Your task to perform on an android device: open app "Microsoft Outlook" (install if not already installed), go to login, and select forgot password Image 0: 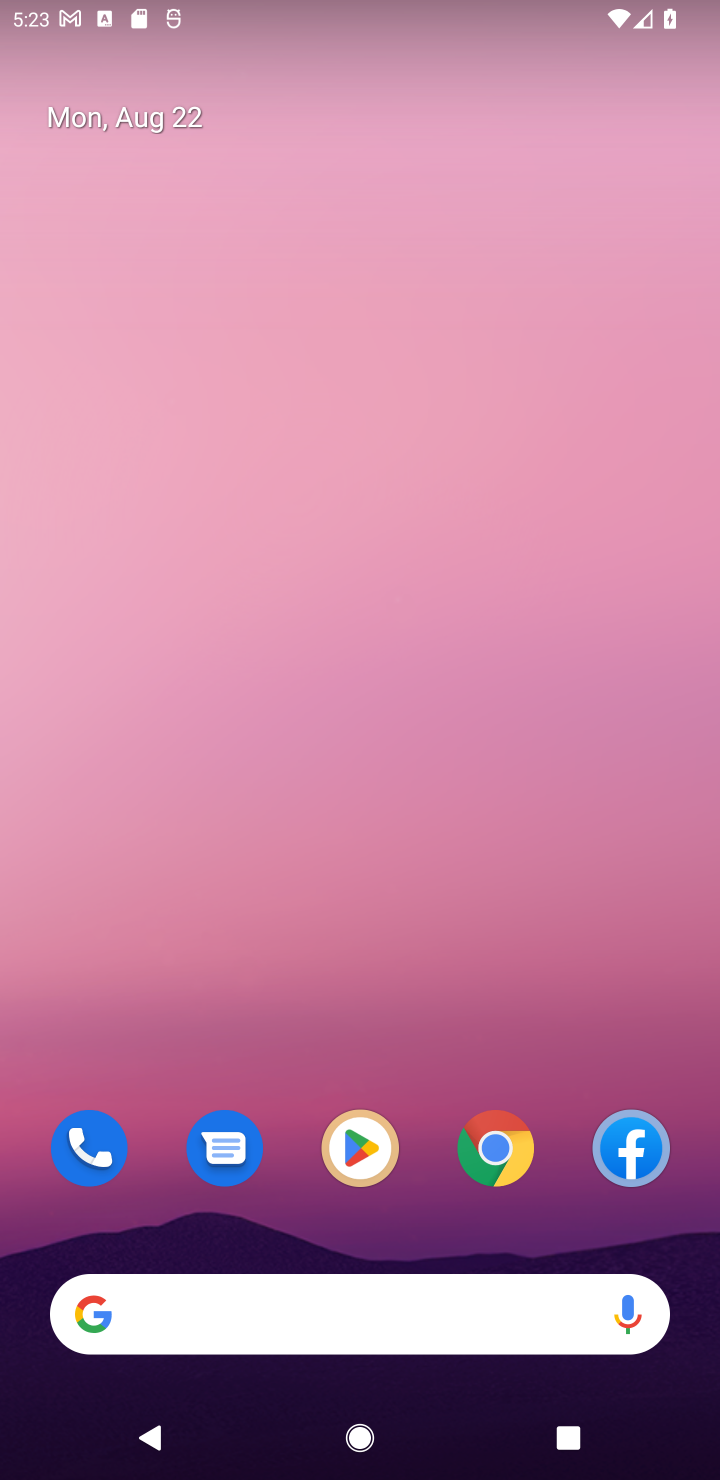
Step 0: click (362, 1155)
Your task to perform on an android device: open app "Microsoft Outlook" (install if not already installed), go to login, and select forgot password Image 1: 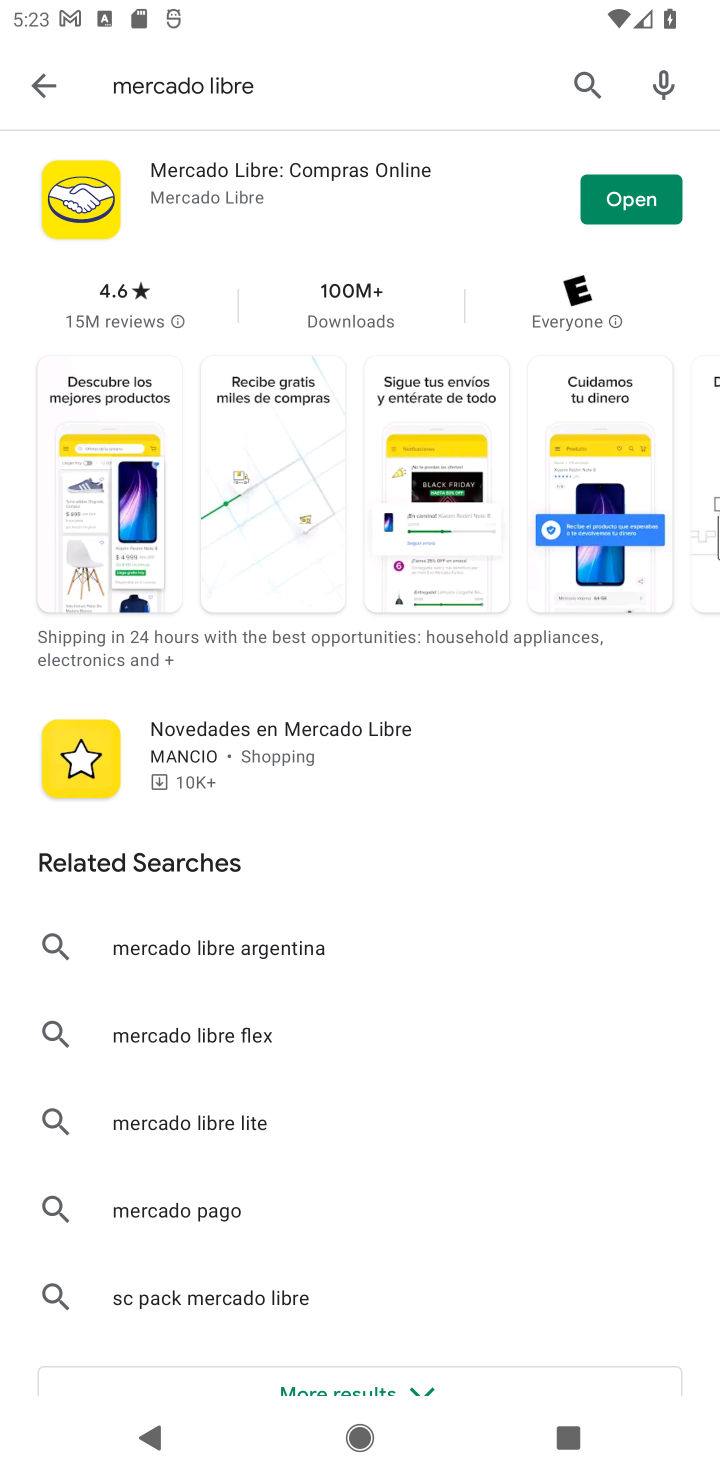
Step 1: click (587, 85)
Your task to perform on an android device: open app "Microsoft Outlook" (install if not already installed), go to login, and select forgot password Image 2: 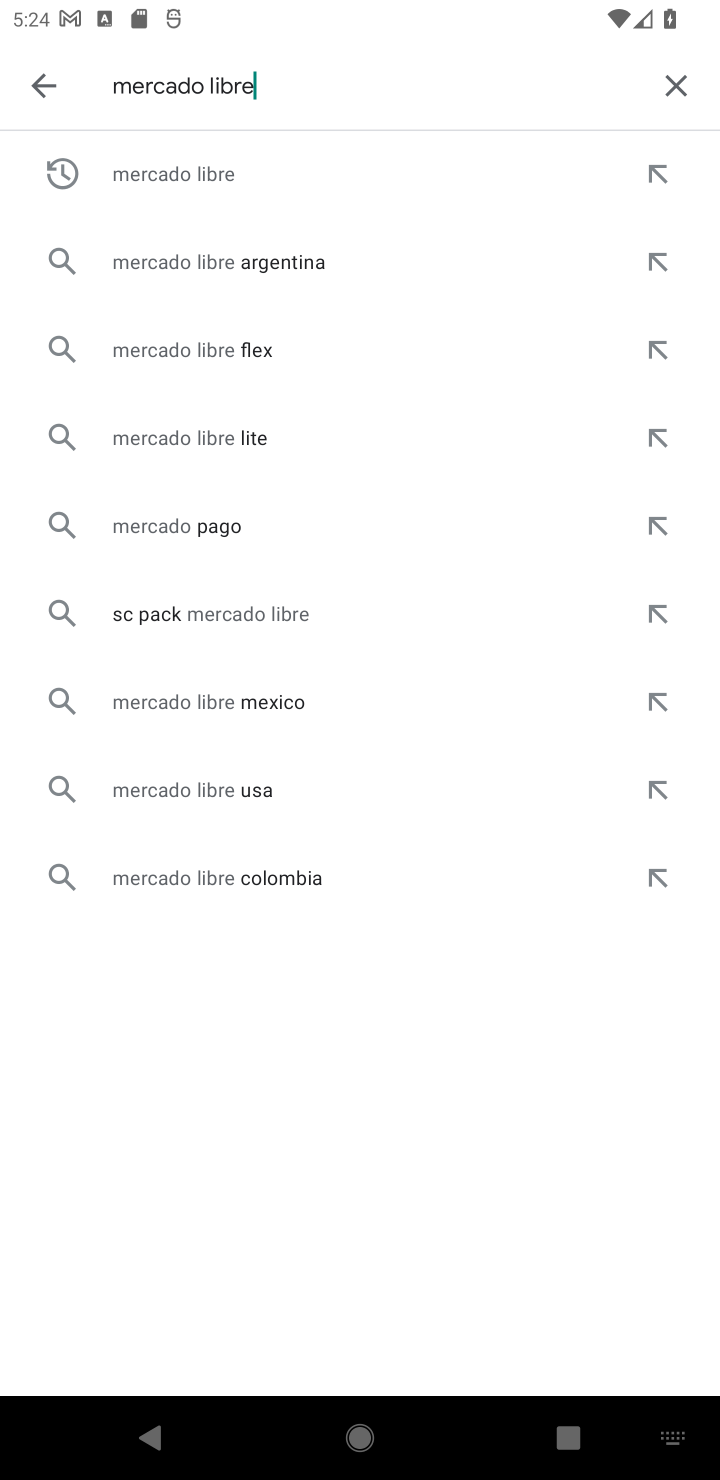
Step 2: click (667, 84)
Your task to perform on an android device: open app "Microsoft Outlook" (install if not already installed), go to login, and select forgot password Image 3: 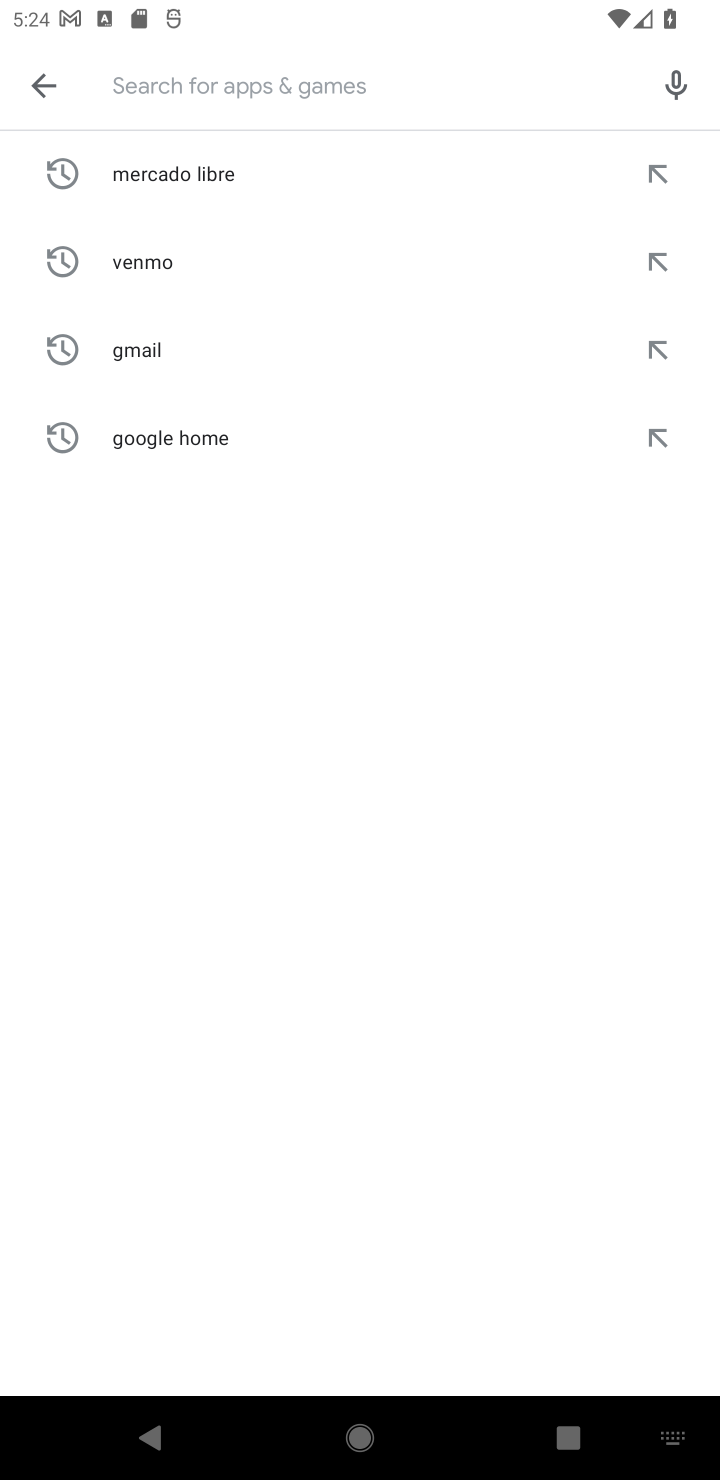
Step 3: type "Microsoft Outlook"
Your task to perform on an android device: open app "Microsoft Outlook" (install if not already installed), go to login, and select forgot password Image 4: 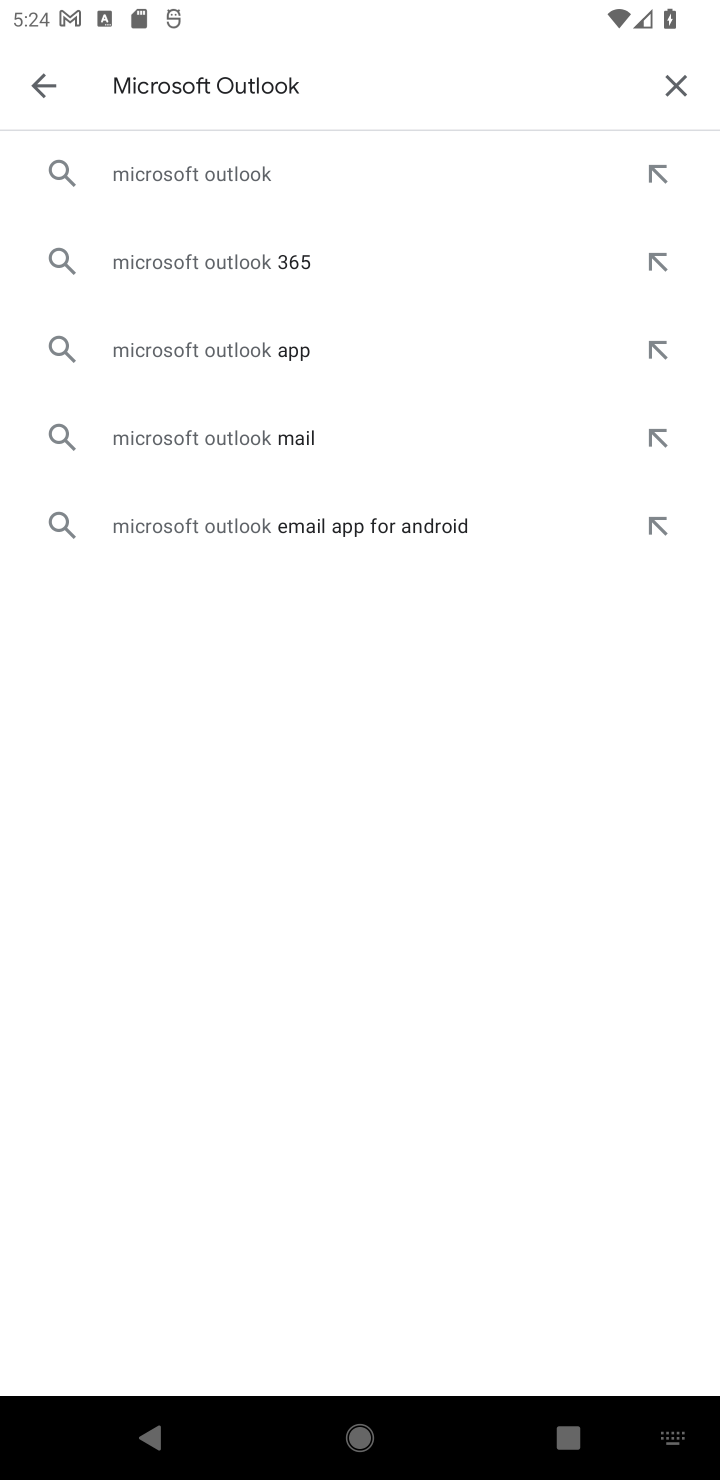
Step 4: click (201, 173)
Your task to perform on an android device: open app "Microsoft Outlook" (install if not already installed), go to login, and select forgot password Image 5: 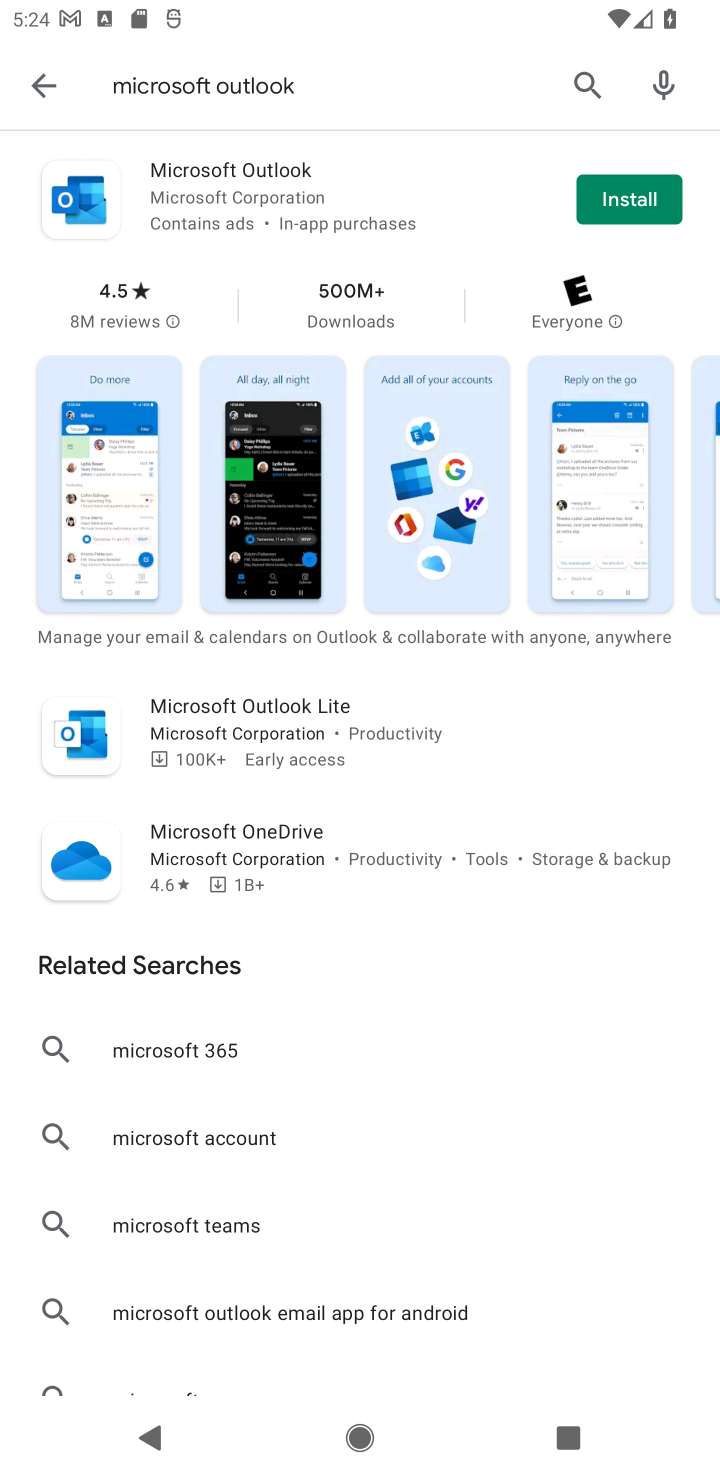
Step 5: click (644, 203)
Your task to perform on an android device: open app "Microsoft Outlook" (install if not already installed), go to login, and select forgot password Image 6: 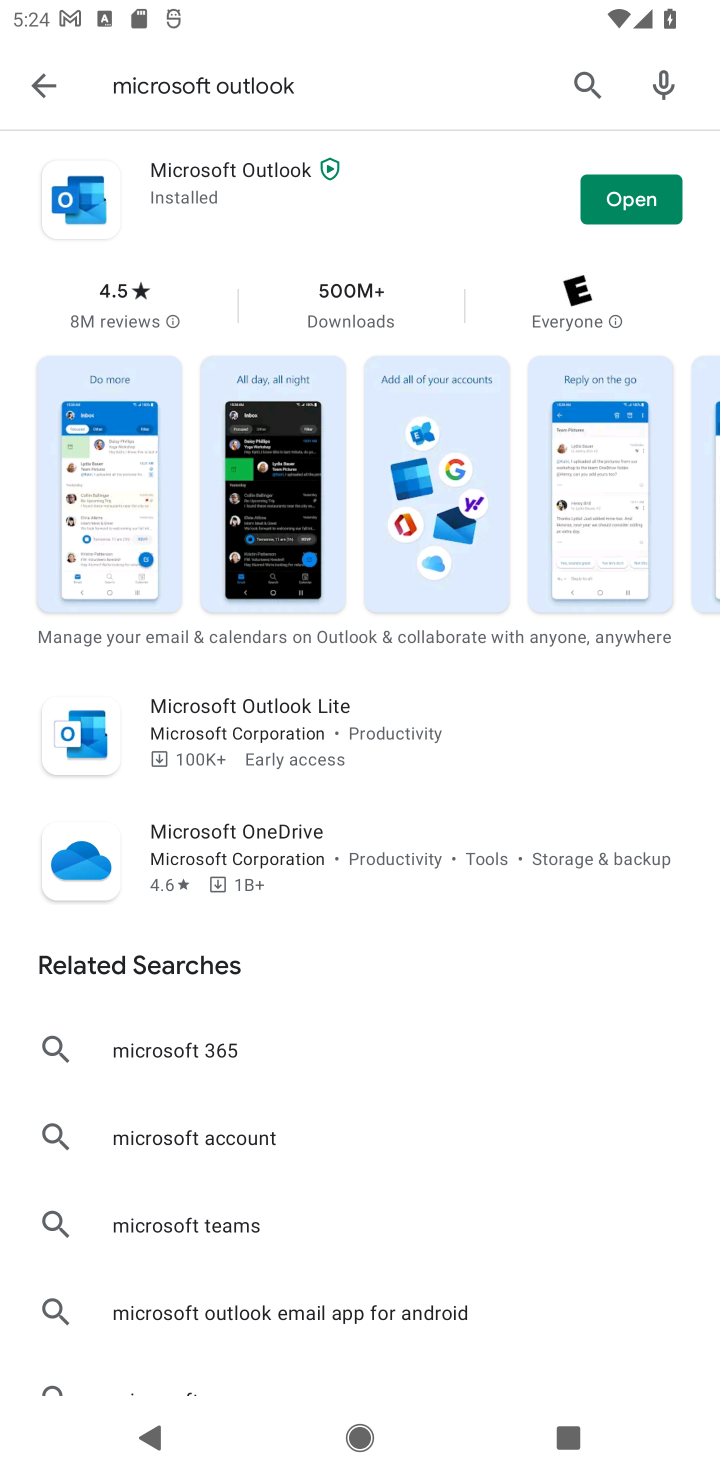
Step 6: click (637, 204)
Your task to perform on an android device: open app "Microsoft Outlook" (install if not already installed), go to login, and select forgot password Image 7: 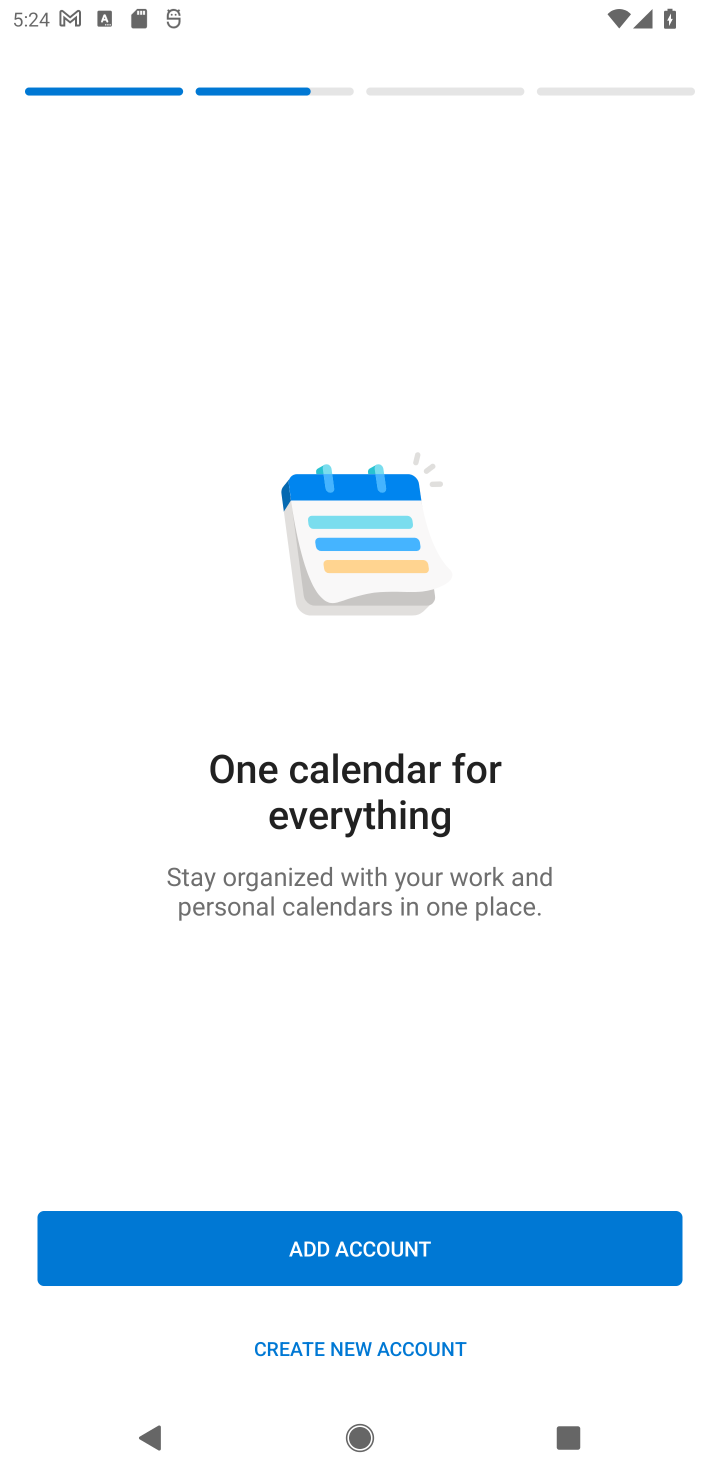
Step 7: click (383, 1257)
Your task to perform on an android device: open app "Microsoft Outlook" (install if not already installed), go to login, and select forgot password Image 8: 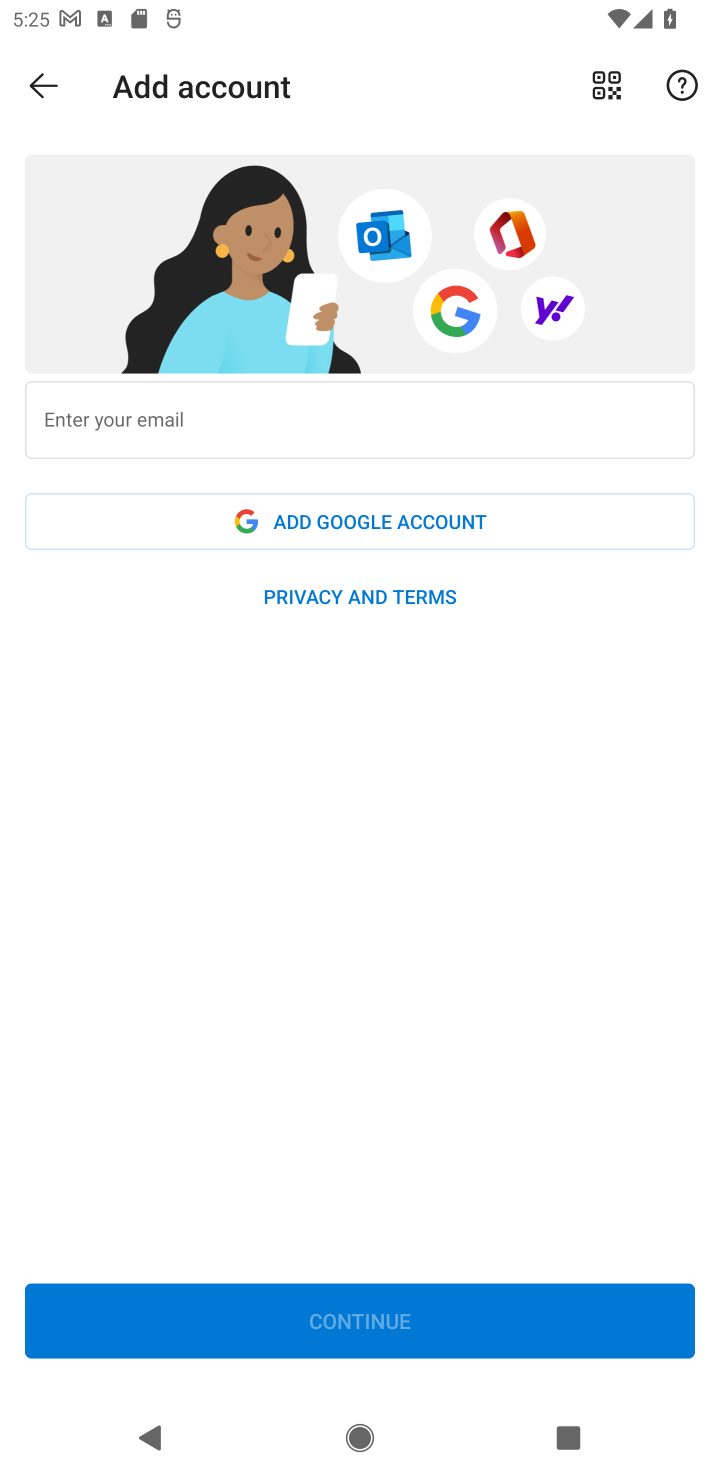
Step 8: click (463, 522)
Your task to perform on an android device: open app "Microsoft Outlook" (install if not already installed), go to login, and select forgot password Image 9: 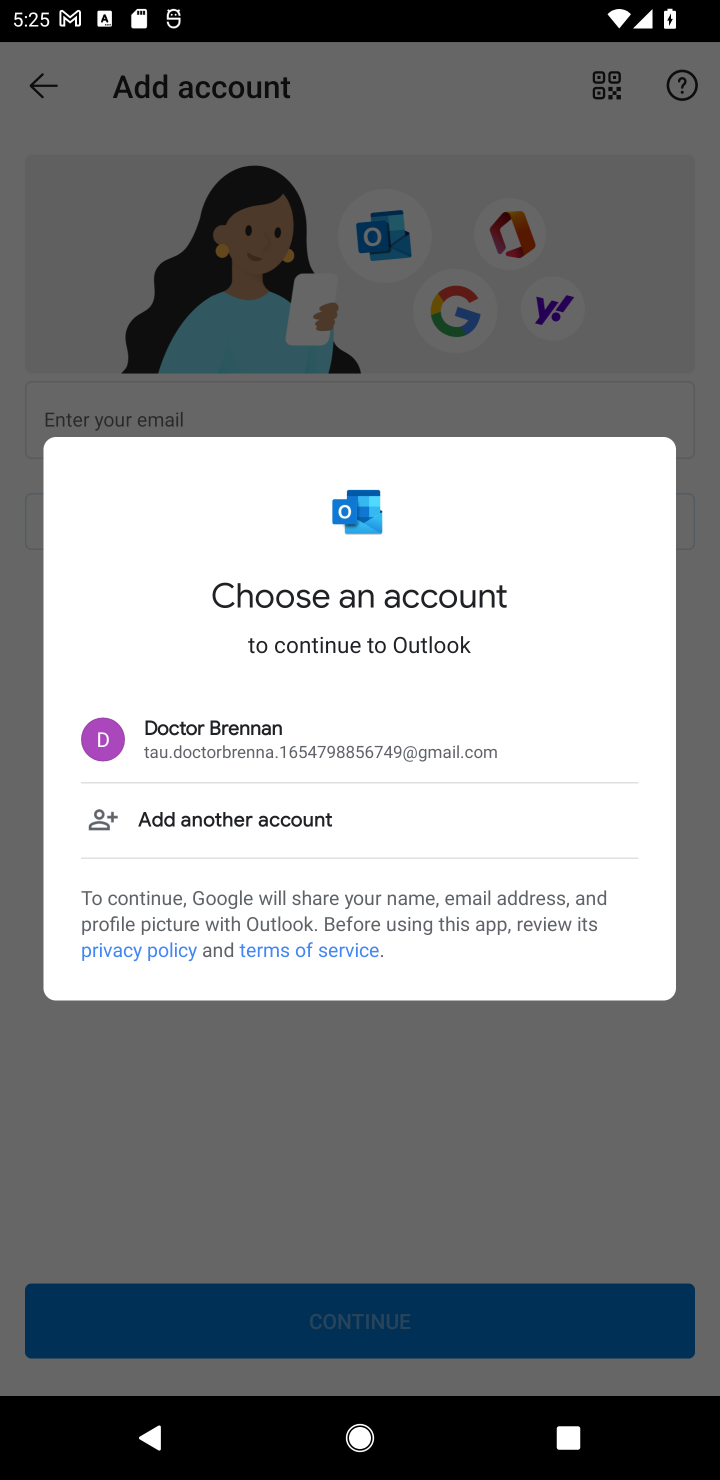
Step 9: click (332, 819)
Your task to perform on an android device: open app "Microsoft Outlook" (install if not already installed), go to login, and select forgot password Image 10: 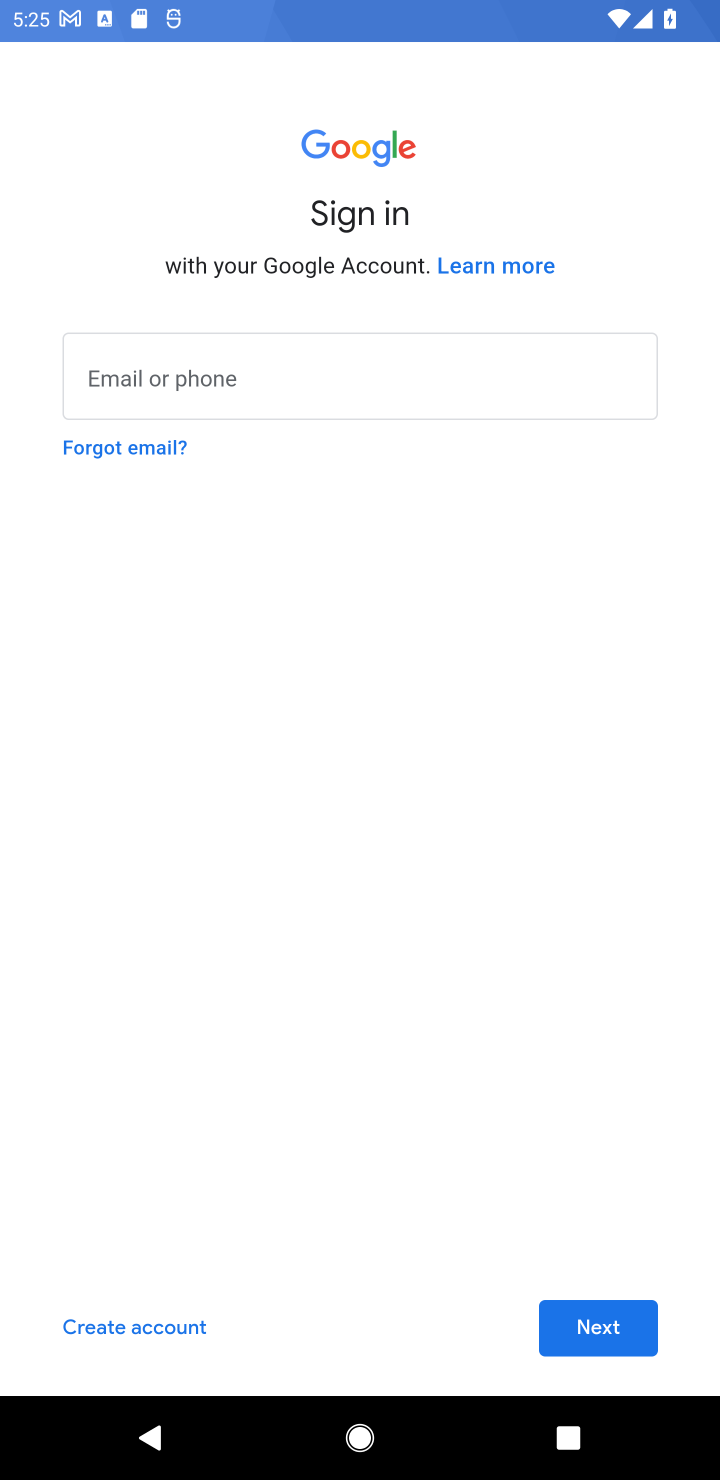
Step 10: click (155, 451)
Your task to perform on an android device: open app "Microsoft Outlook" (install if not already installed), go to login, and select forgot password Image 11: 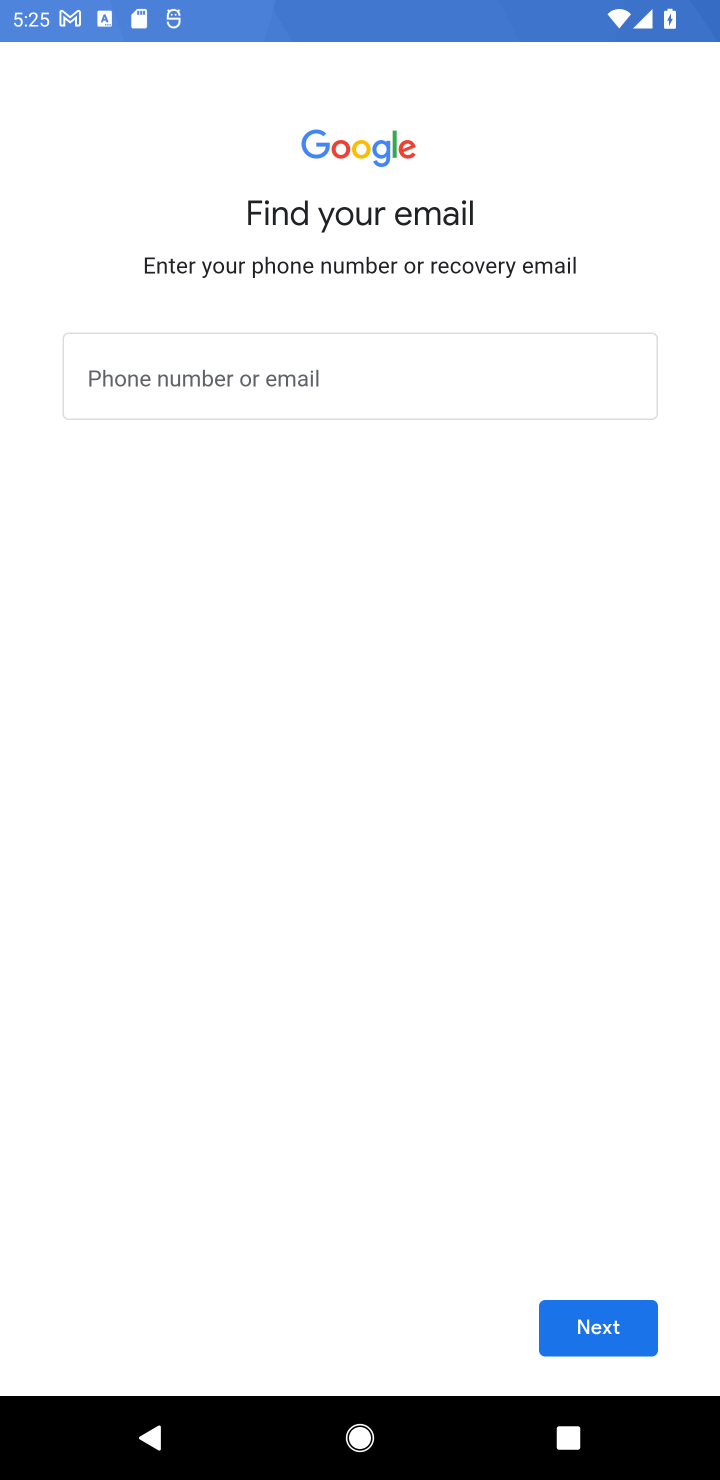
Step 11: task complete